Your task to perform on an android device: Show the shopping cart on amazon. Add "macbook air" to the cart on amazon Image 0: 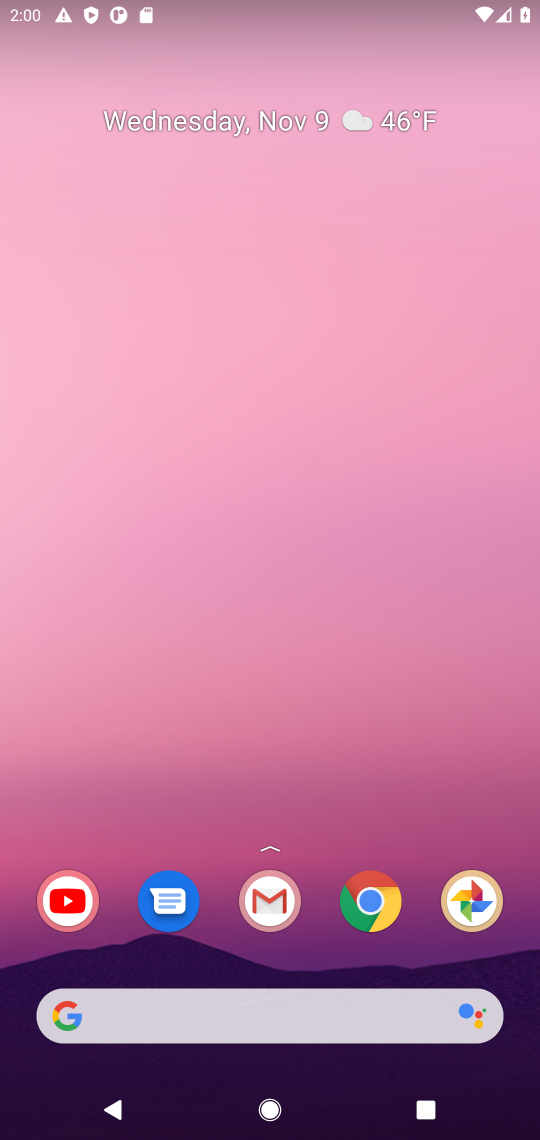
Step 0: click (376, 899)
Your task to perform on an android device: Show the shopping cart on amazon. Add "macbook air" to the cart on amazon Image 1: 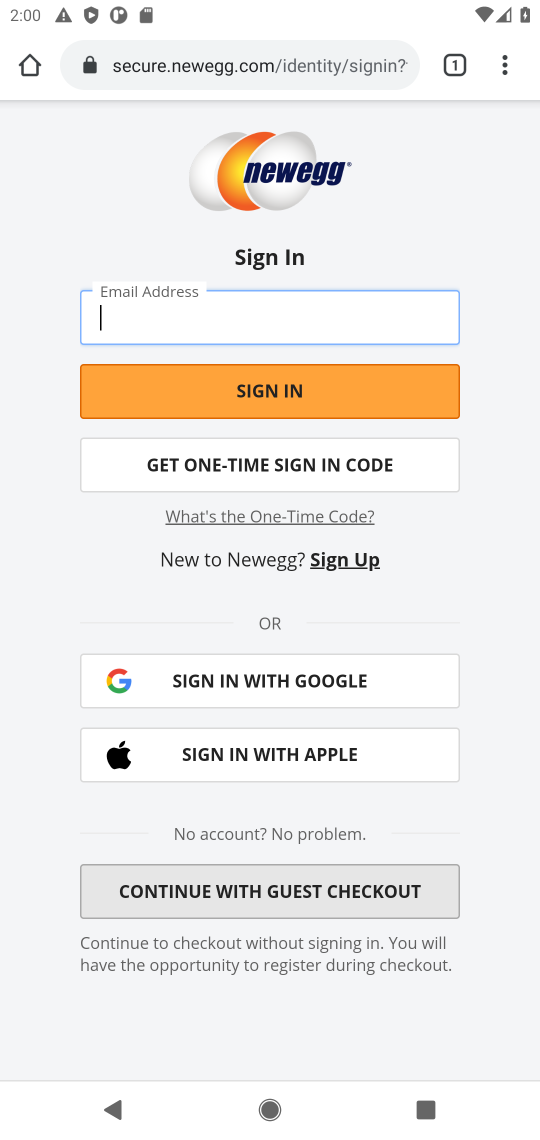
Step 1: click (218, 61)
Your task to perform on an android device: Show the shopping cart on amazon. Add "macbook air" to the cart on amazon Image 2: 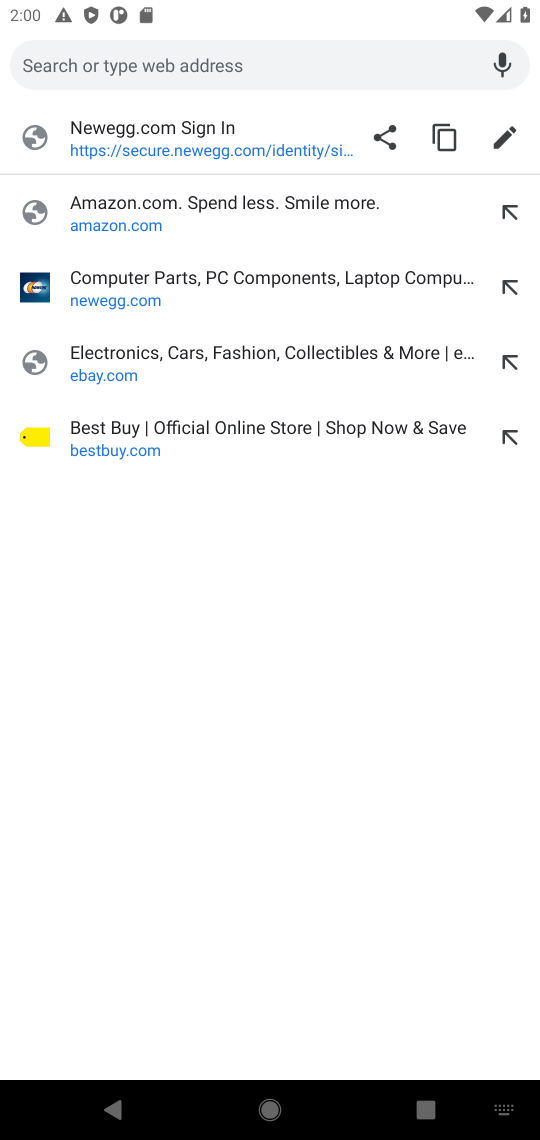
Step 2: click (235, 197)
Your task to perform on an android device: Show the shopping cart on amazon. Add "macbook air" to the cart on amazon Image 3: 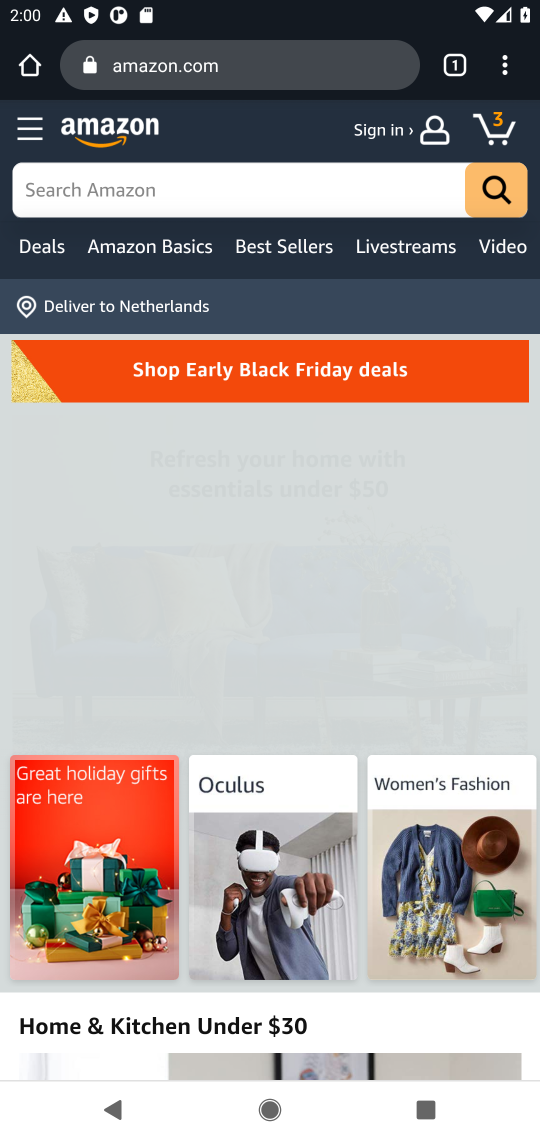
Step 3: click (499, 139)
Your task to perform on an android device: Show the shopping cart on amazon. Add "macbook air" to the cart on amazon Image 4: 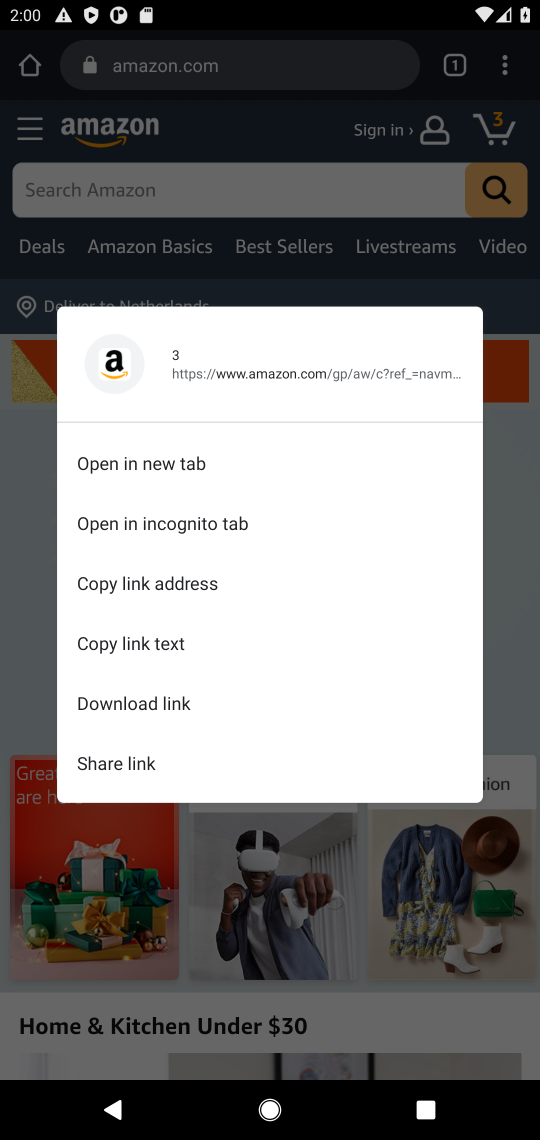
Step 4: click (499, 139)
Your task to perform on an android device: Show the shopping cart on amazon. Add "macbook air" to the cart on amazon Image 5: 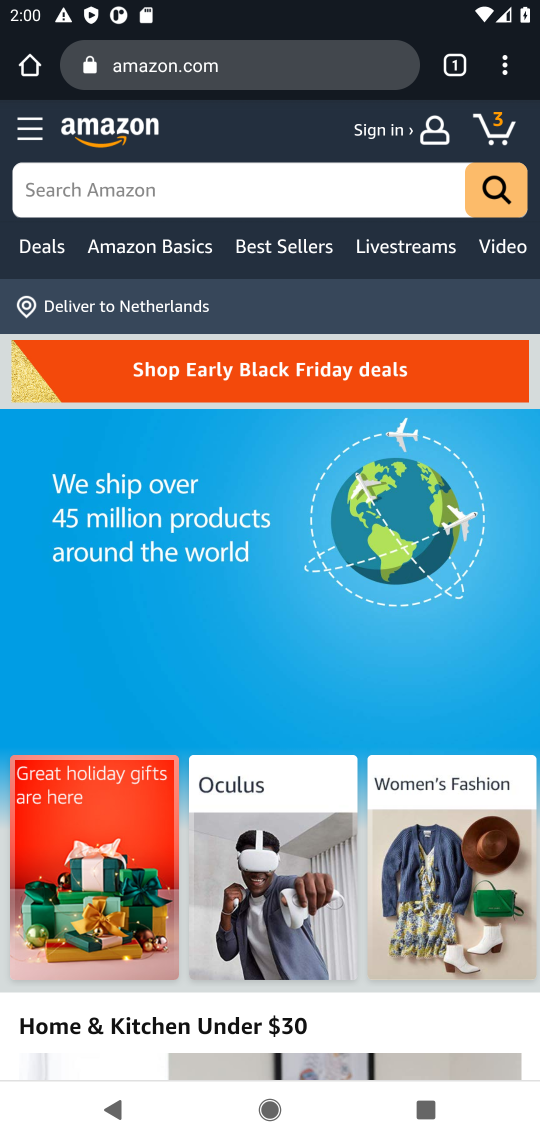
Step 5: click (499, 139)
Your task to perform on an android device: Show the shopping cart on amazon. Add "macbook air" to the cart on amazon Image 6: 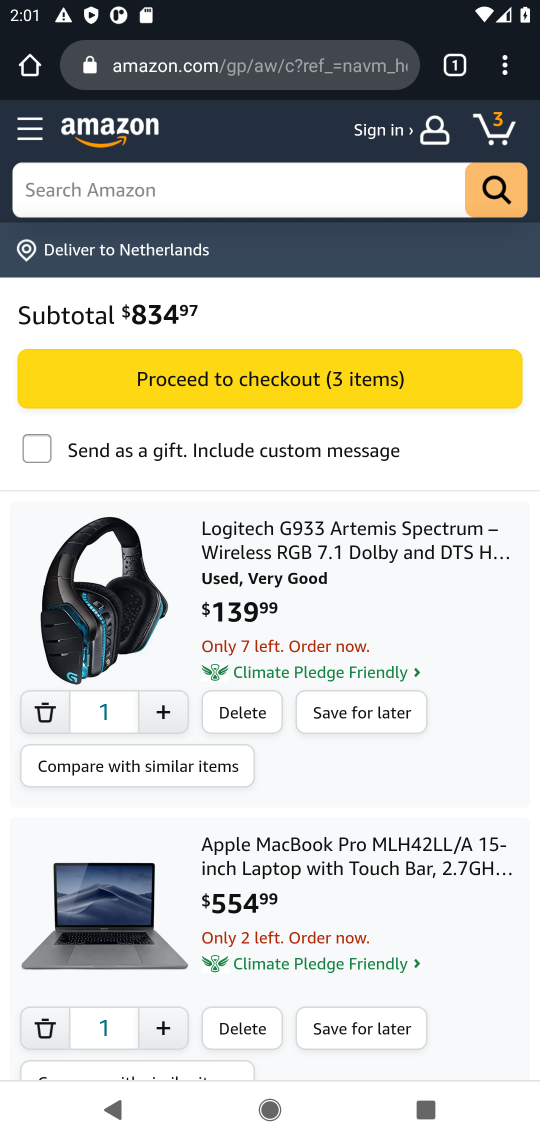
Step 6: click (212, 184)
Your task to perform on an android device: Show the shopping cart on amazon. Add "macbook air" to the cart on amazon Image 7: 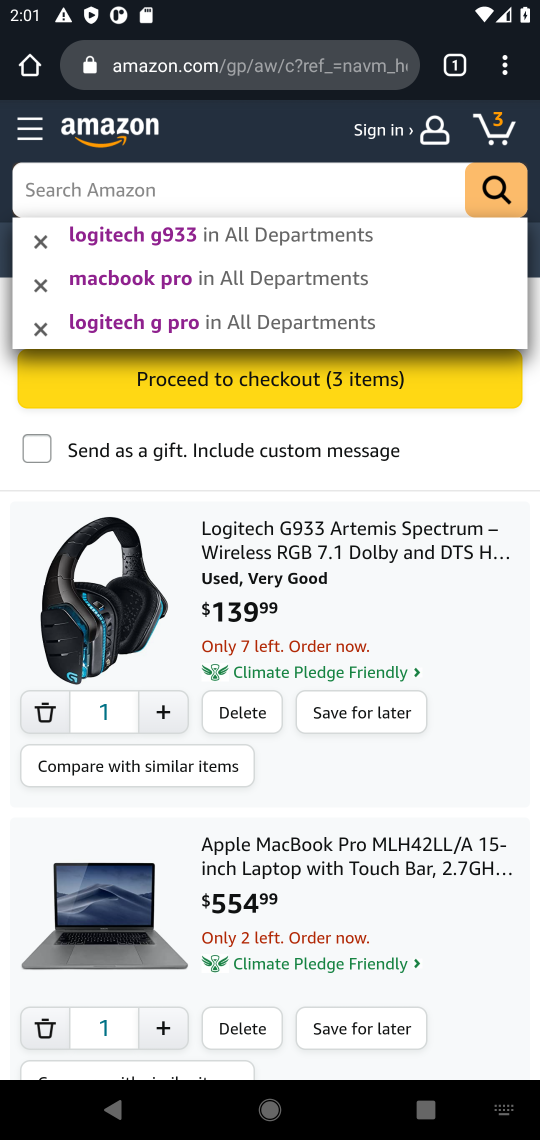
Step 7: type "macbook air"
Your task to perform on an android device: Show the shopping cart on amazon. Add "macbook air" to the cart on amazon Image 8: 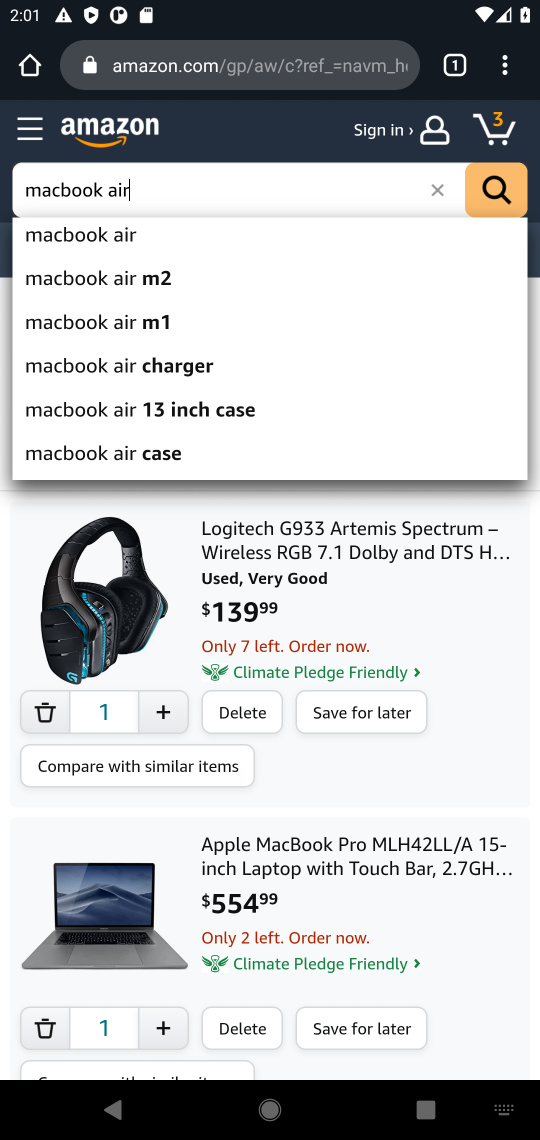
Step 8: press enter
Your task to perform on an android device: Show the shopping cart on amazon. Add "macbook air" to the cart on amazon Image 9: 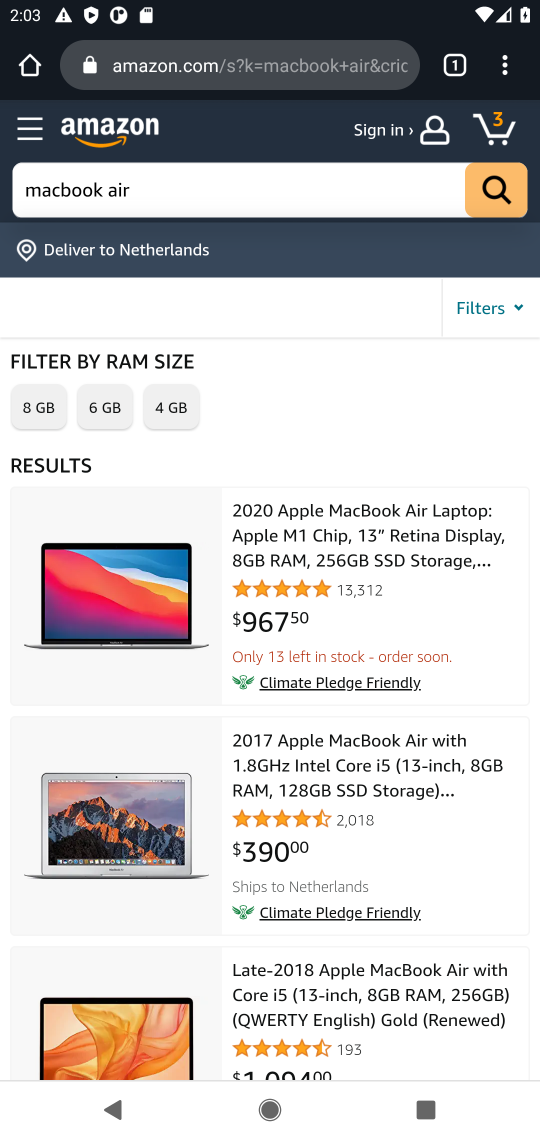
Step 9: click (319, 547)
Your task to perform on an android device: Show the shopping cart on amazon. Add "macbook air" to the cart on amazon Image 10: 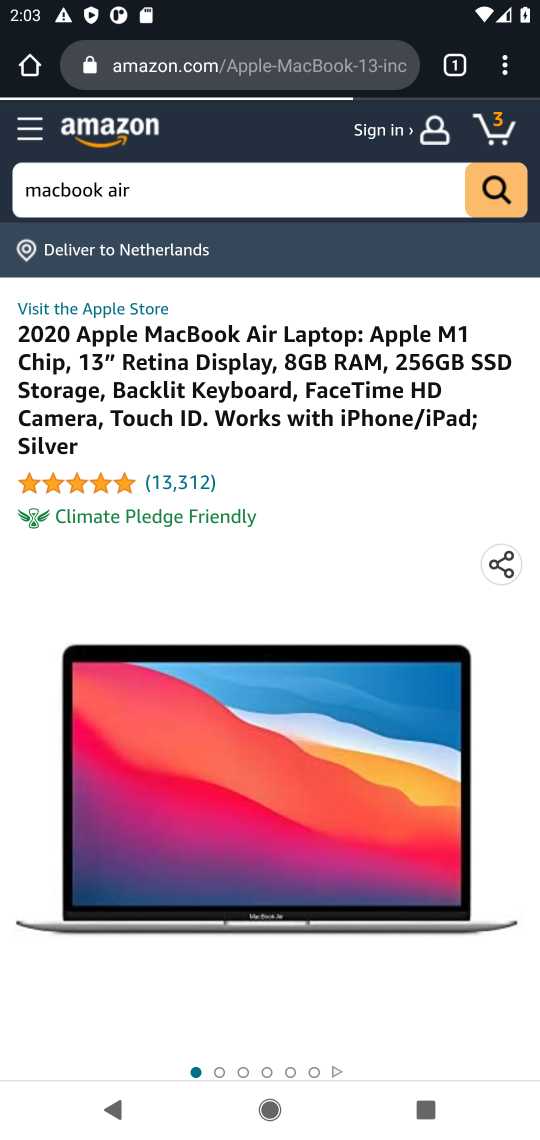
Step 10: drag from (345, 534) to (407, 213)
Your task to perform on an android device: Show the shopping cart on amazon. Add "macbook air" to the cart on amazon Image 11: 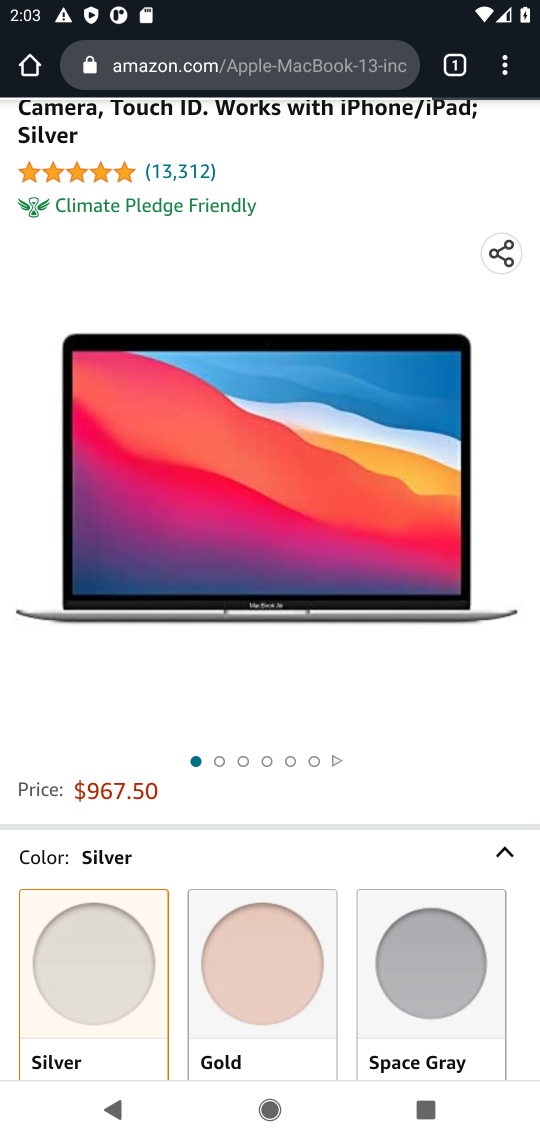
Step 11: drag from (382, 673) to (413, 319)
Your task to perform on an android device: Show the shopping cart on amazon. Add "macbook air" to the cart on amazon Image 12: 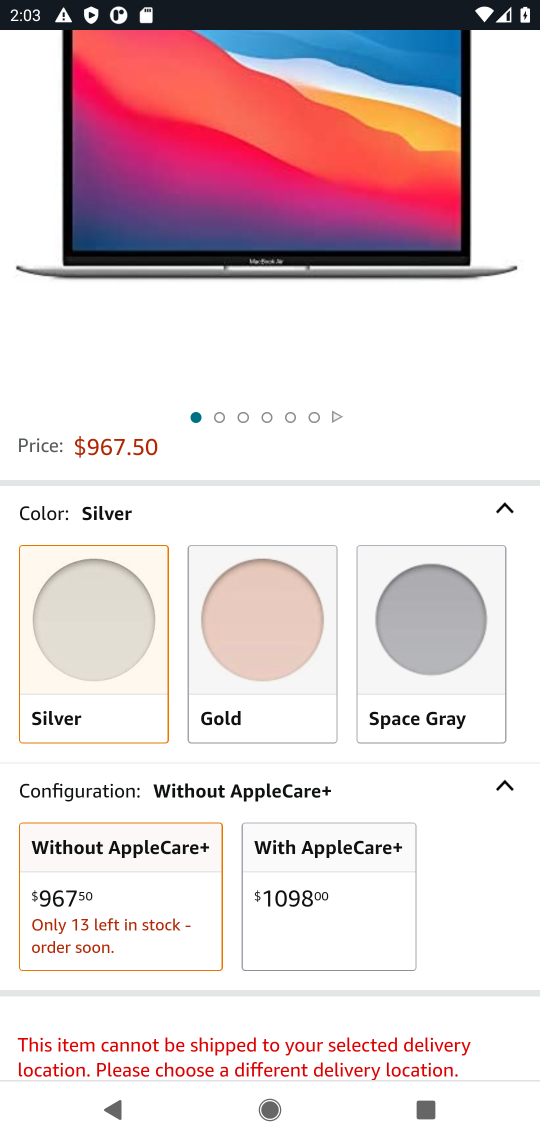
Step 12: drag from (171, 956) to (300, 428)
Your task to perform on an android device: Show the shopping cart on amazon. Add "macbook air" to the cart on amazon Image 13: 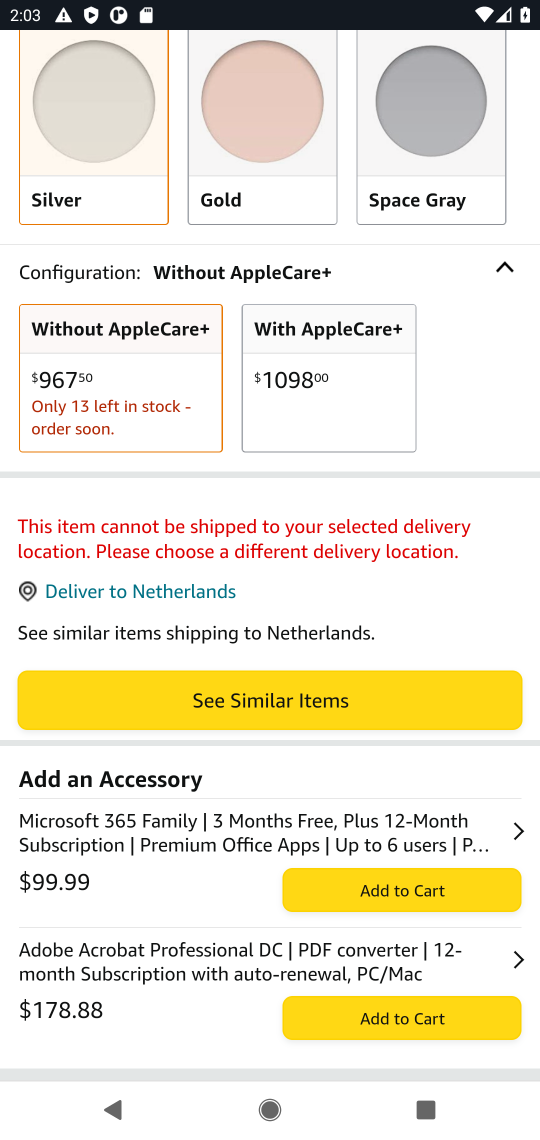
Step 13: press back button
Your task to perform on an android device: Show the shopping cart on amazon. Add "macbook air" to the cart on amazon Image 14: 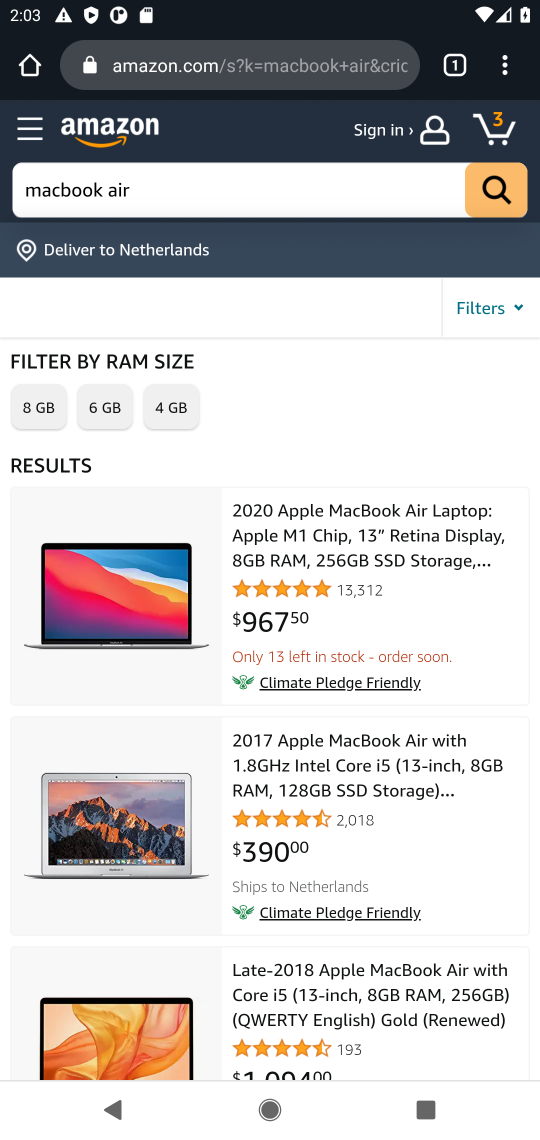
Step 14: click (177, 790)
Your task to perform on an android device: Show the shopping cart on amazon. Add "macbook air" to the cart on amazon Image 15: 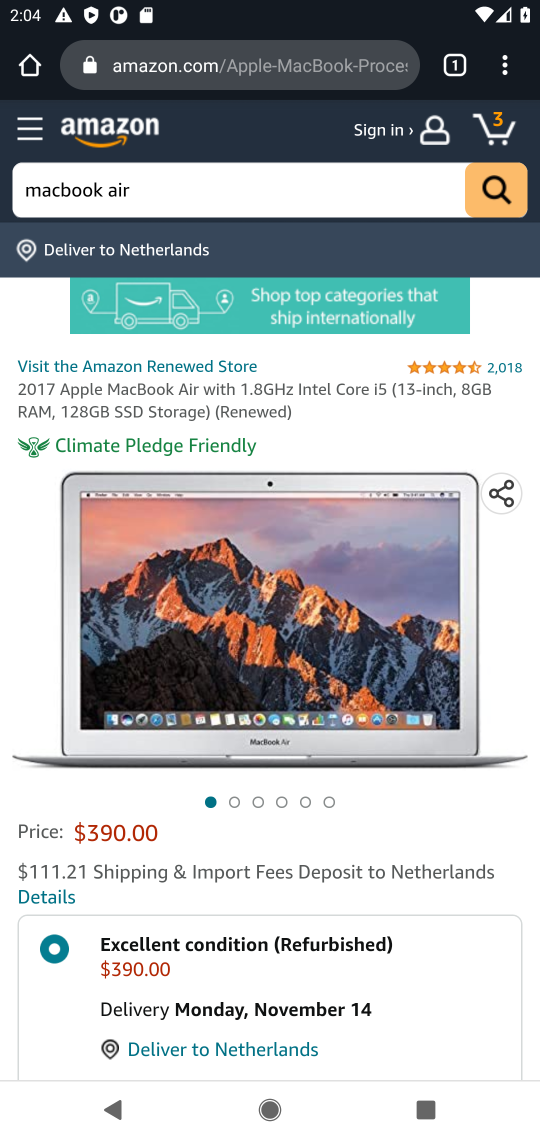
Step 15: drag from (306, 821) to (339, 237)
Your task to perform on an android device: Show the shopping cart on amazon. Add "macbook air" to the cart on amazon Image 16: 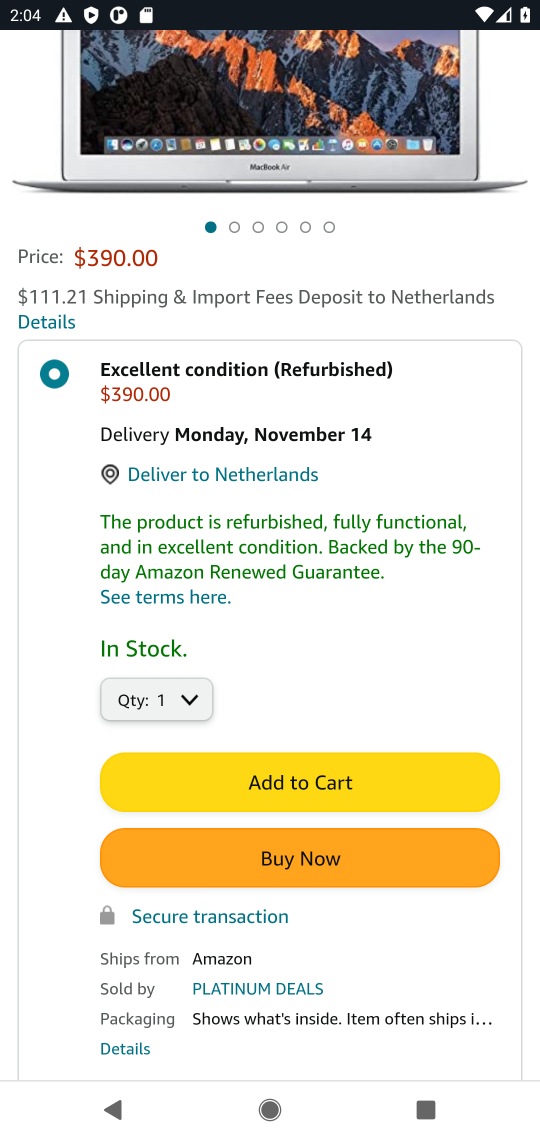
Step 16: click (376, 775)
Your task to perform on an android device: Show the shopping cart on amazon. Add "macbook air" to the cart on amazon Image 17: 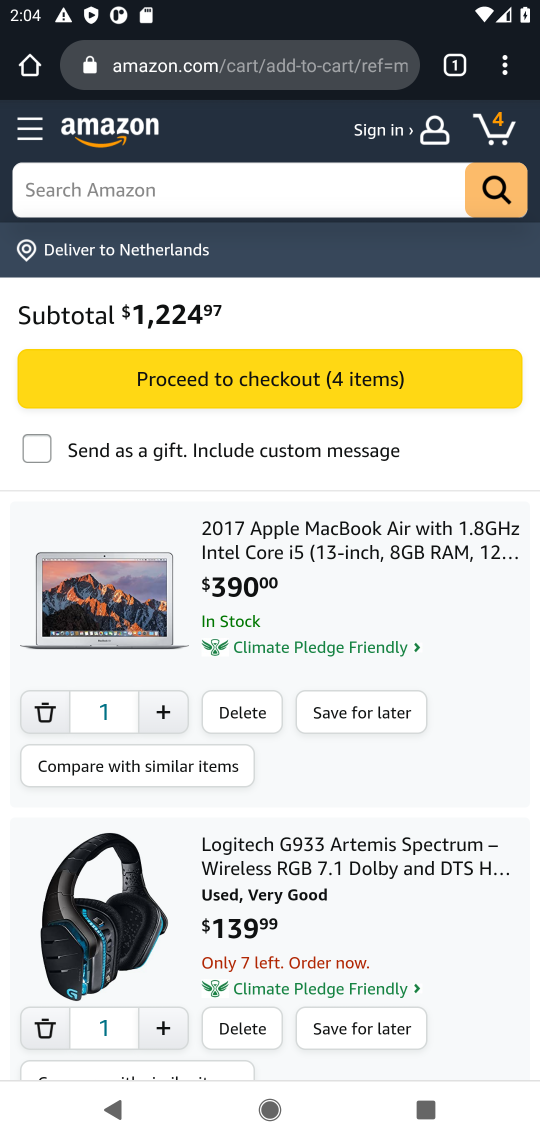
Step 17: task complete